Your task to perform on an android device: Go to battery settings Image 0: 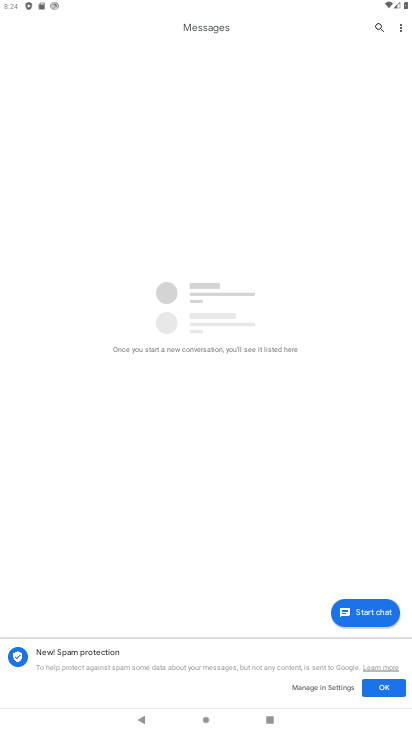
Step 0: press back button
Your task to perform on an android device: Go to battery settings Image 1: 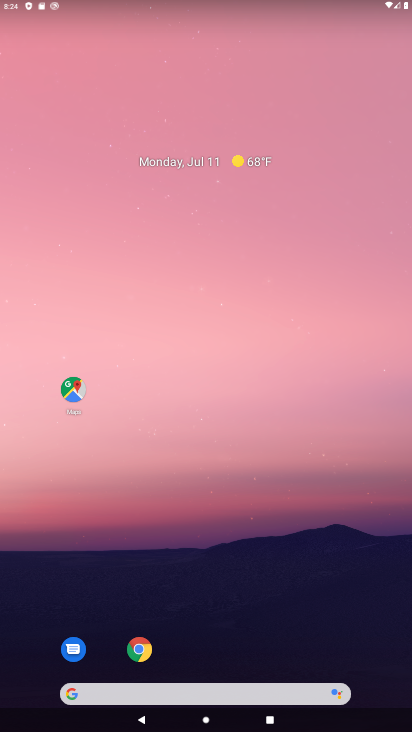
Step 1: drag from (300, 600) to (180, 160)
Your task to perform on an android device: Go to battery settings Image 2: 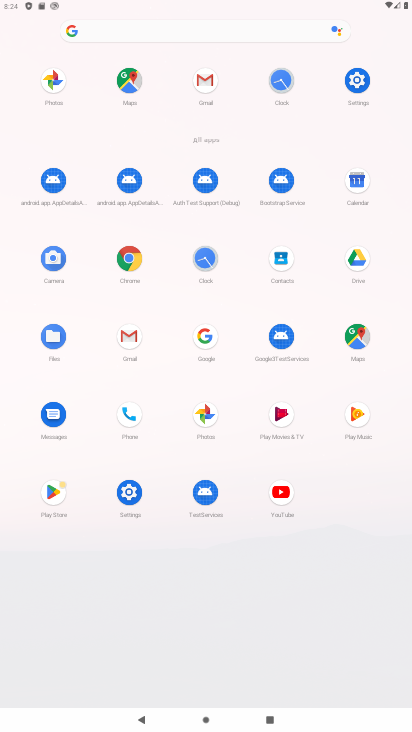
Step 2: click (356, 86)
Your task to perform on an android device: Go to battery settings Image 3: 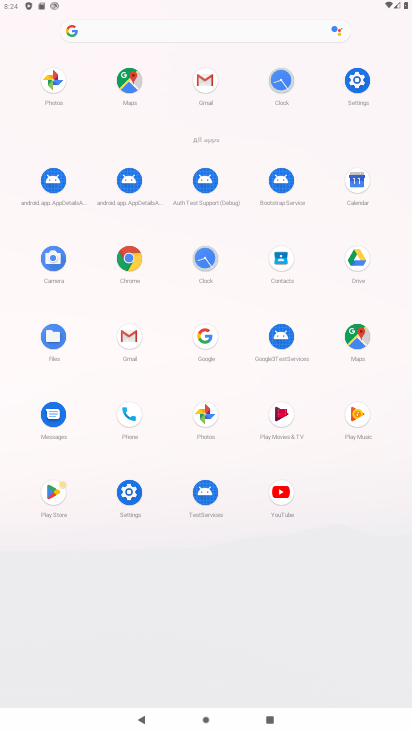
Step 3: click (356, 86)
Your task to perform on an android device: Go to battery settings Image 4: 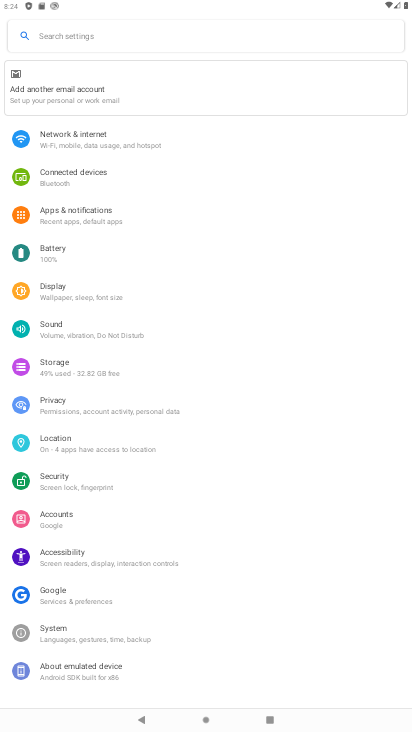
Step 4: click (50, 253)
Your task to perform on an android device: Go to battery settings Image 5: 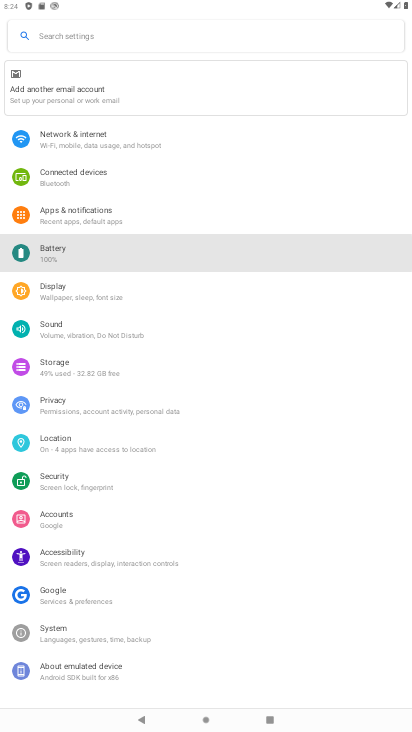
Step 5: click (50, 253)
Your task to perform on an android device: Go to battery settings Image 6: 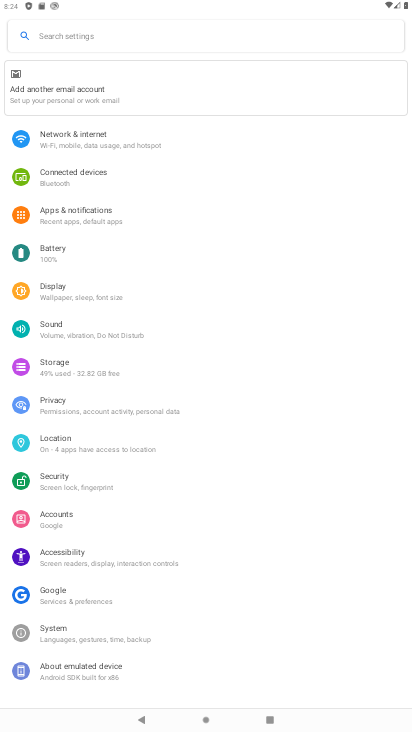
Step 6: click (50, 253)
Your task to perform on an android device: Go to battery settings Image 7: 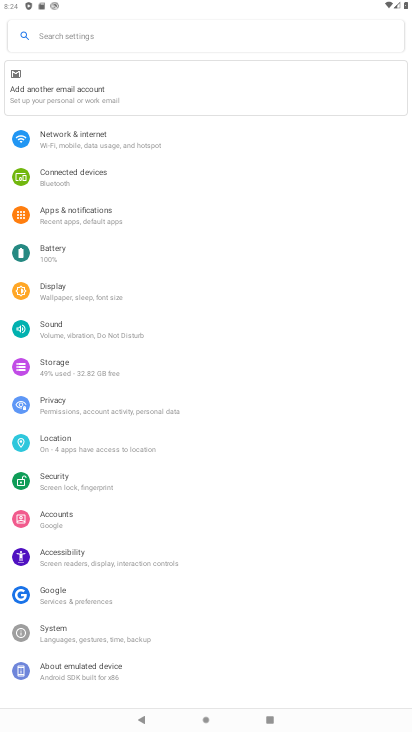
Step 7: click (51, 251)
Your task to perform on an android device: Go to battery settings Image 8: 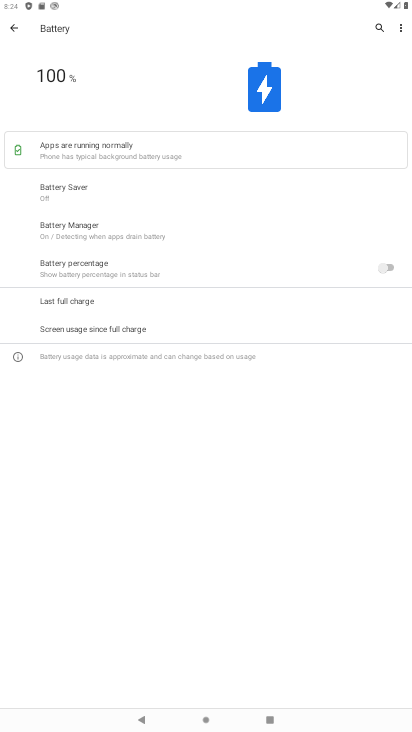
Step 8: click (58, 244)
Your task to perform on an android device: Go to battery settings Image 9: 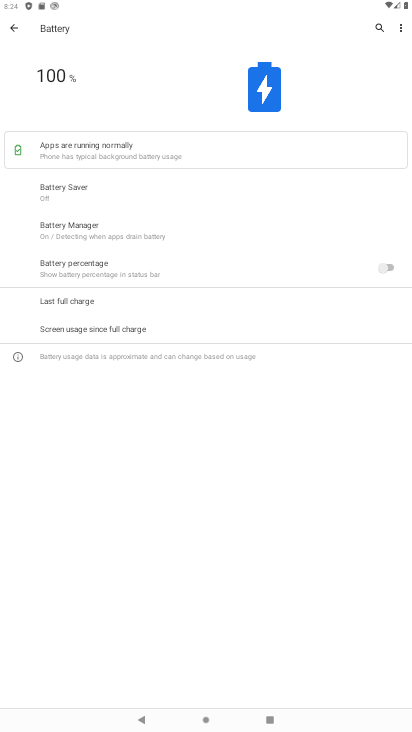
Step 9: click (58, 244)
Your task to perform on an android device: Go to battery settings Image 10: 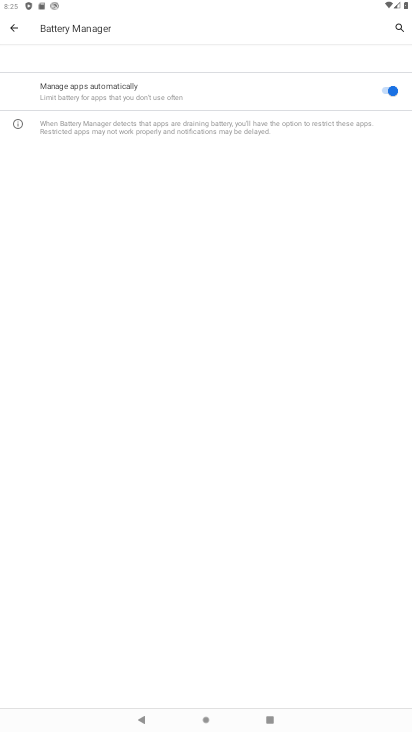
Step 10: task complete